Your task to perform on an android device: uninstall "Google Docs" Image 0: 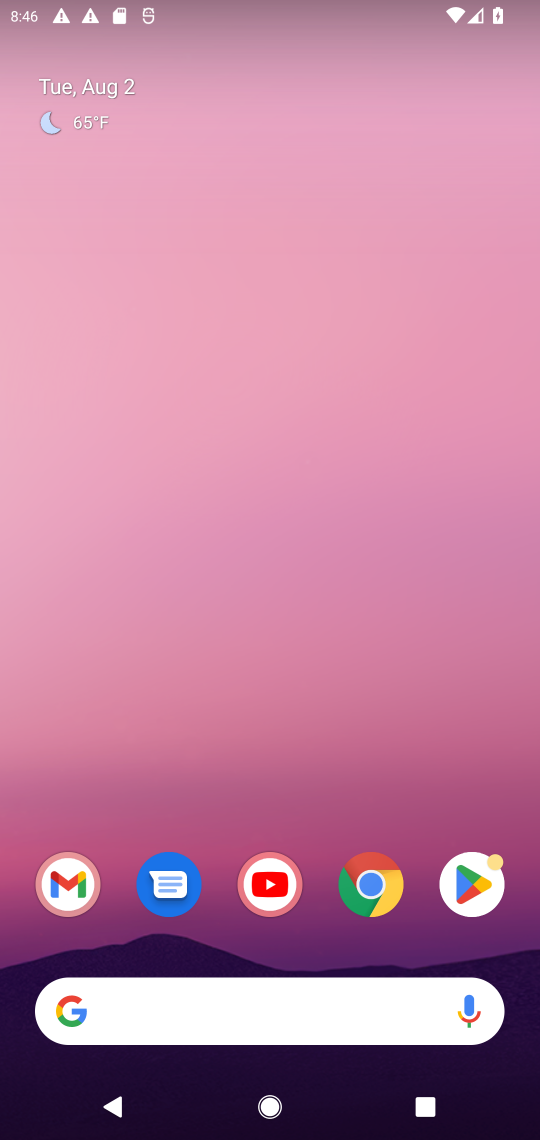
Step 0: press home button
Your task to perform on an android device: uninstall "Google Docs" Image 1: 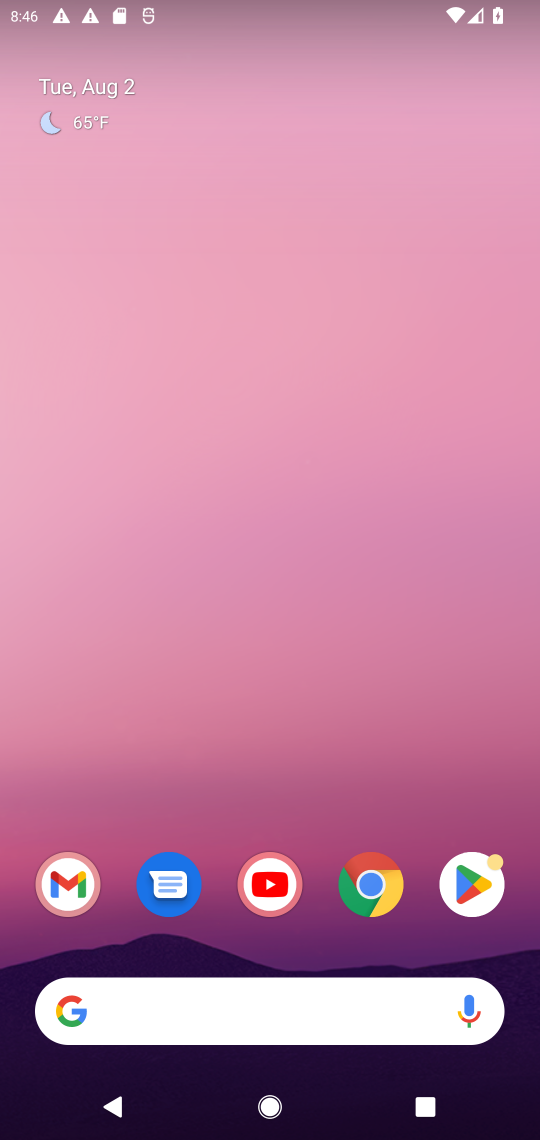
Step 1: click (478, 877)
Your task to perform on an android device: uninstall "Google Docs" Image 2: 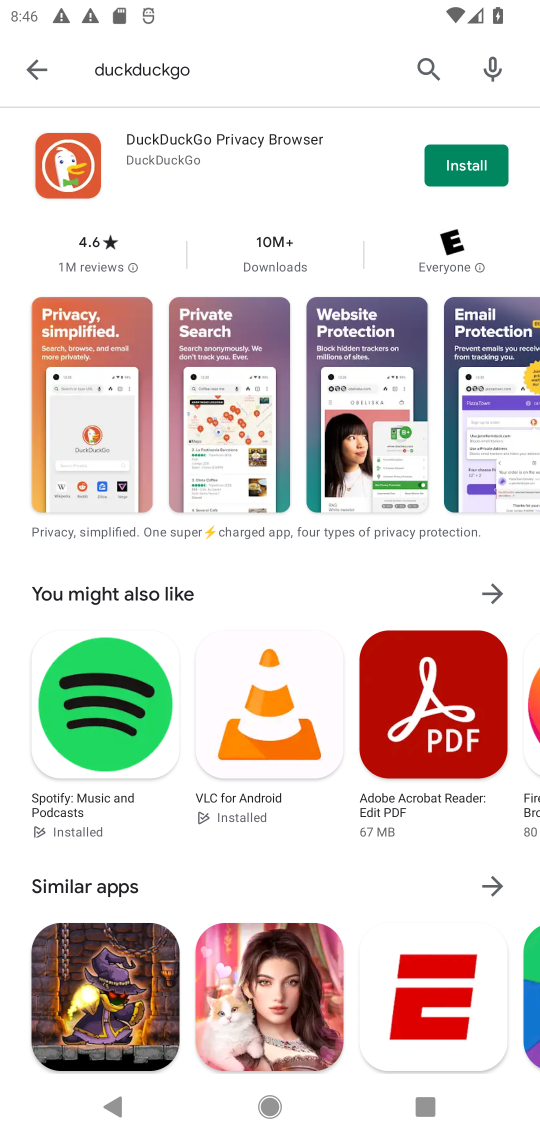
Step 2: click (425, 57)
Your task to perform on an android device: uninstall "Google Docs" Image 3: 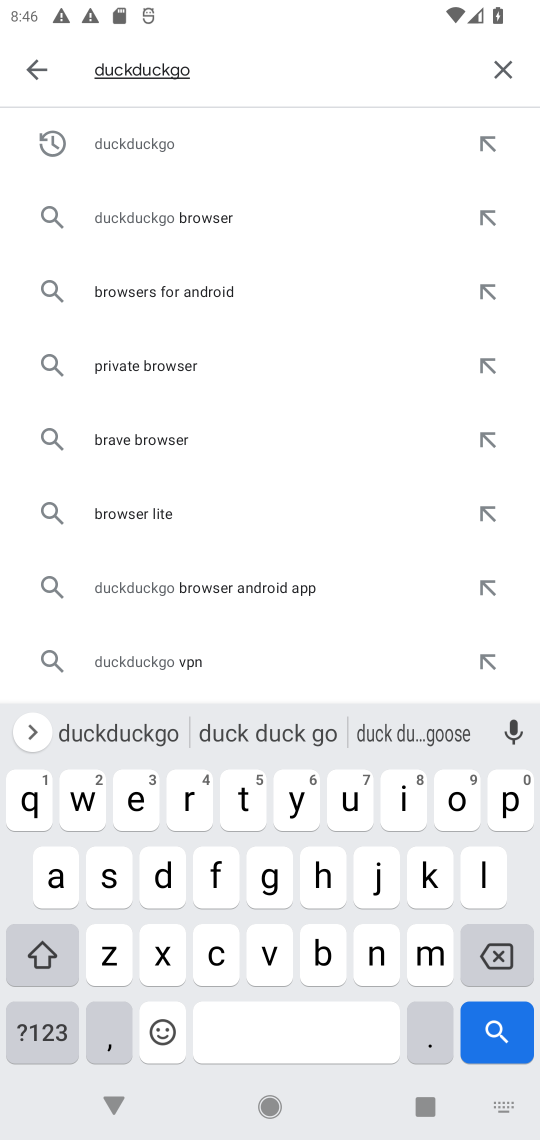
Step 3: click (498, 72)
Your task to perform on an android device: uninstall "Google Docs" Image 4: 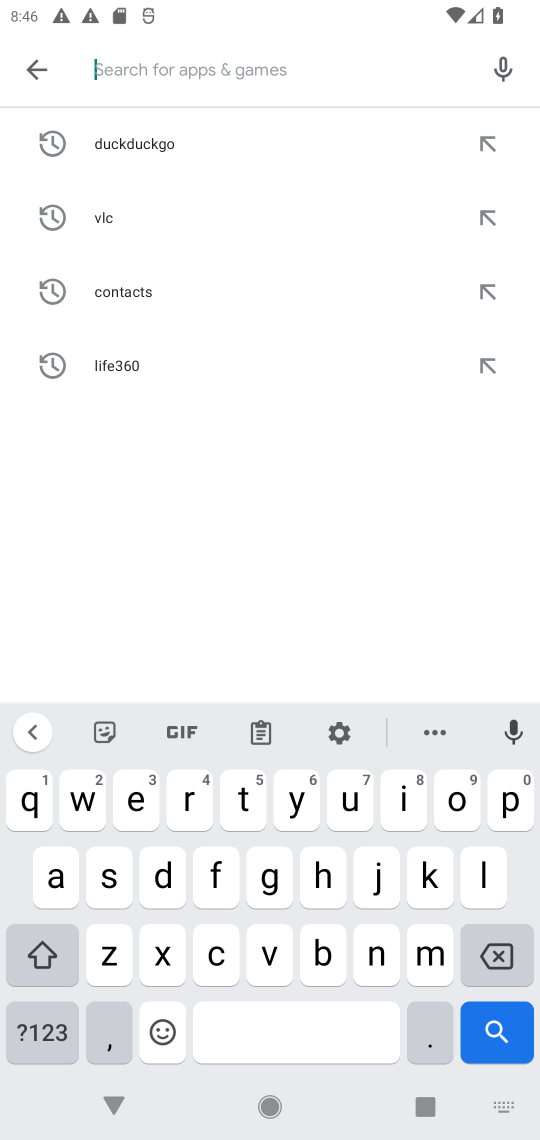
Step 4: click (164, 875)
Your task to perform on an android device: uninstall "Google Docs" Image 5: 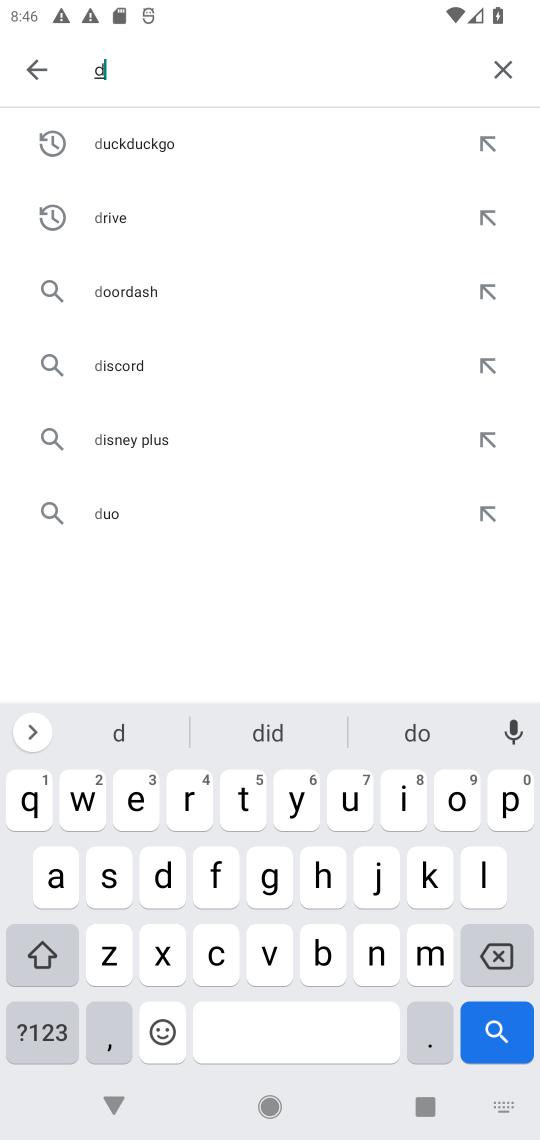
Step 5: click (460, 803)
Your task to perform on an android device: uninstall "Google Docs" Image 6: 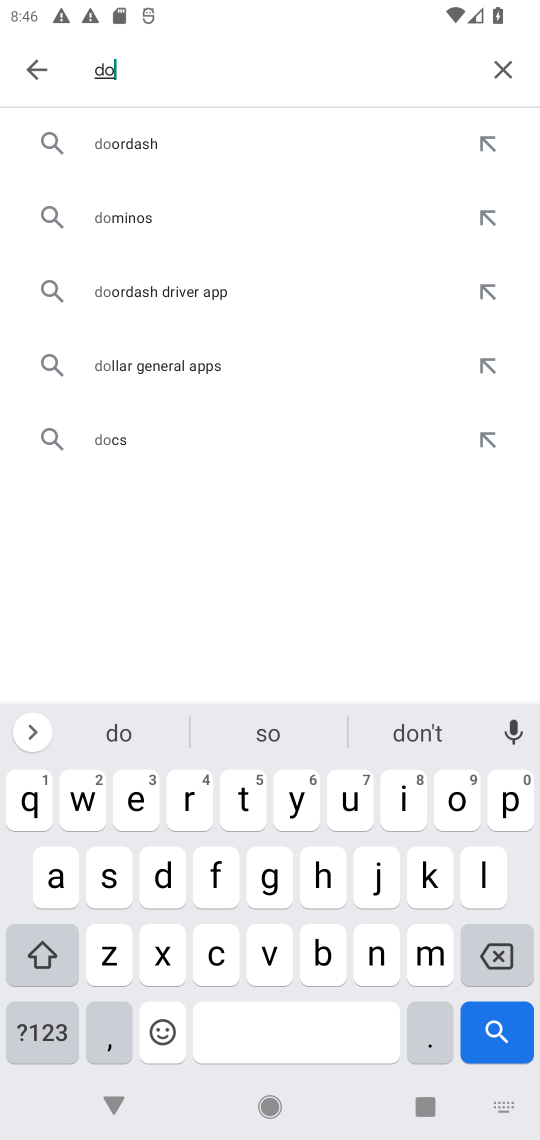
Step 6: click (204, 972)
Your task to perform on an android device: uninstall "Google Docs" Image 7: 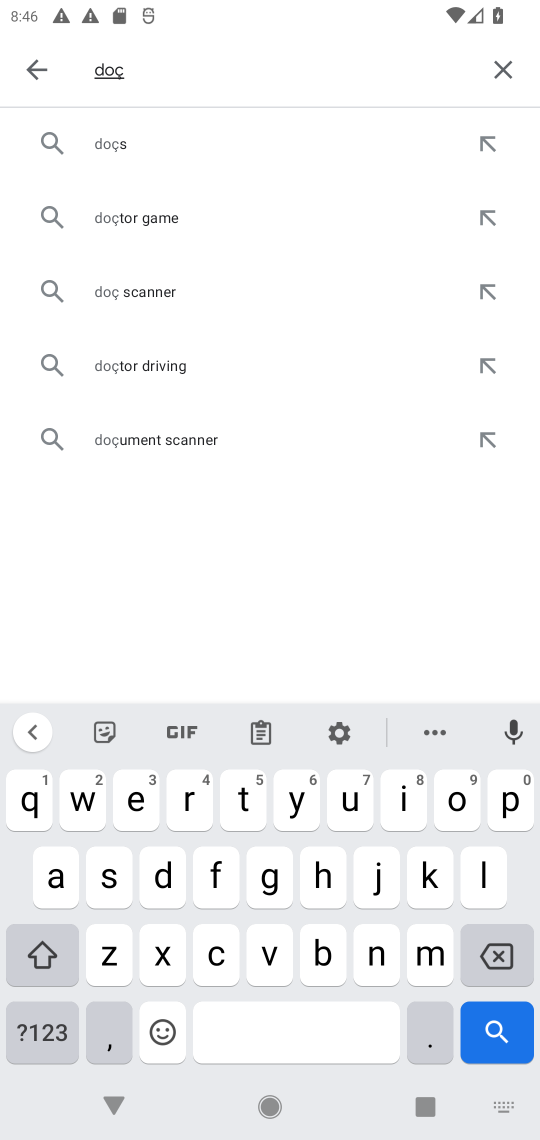
Step 7: click (145, 139)
Your task to perform on an android device: uninstall "Google Docs" Image 8: 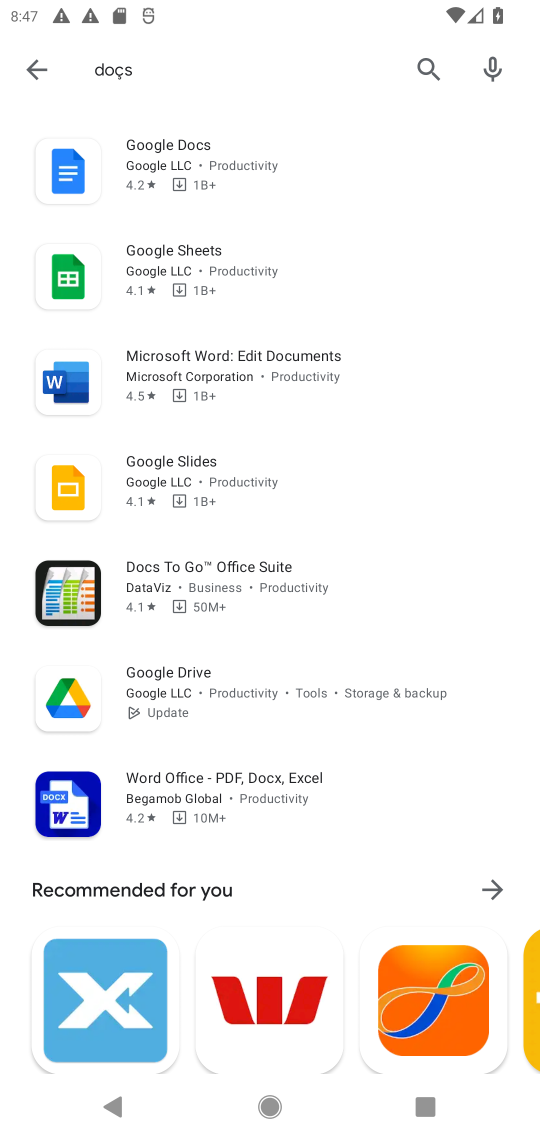
Step 8: click (239, 170)
Your task to perform on an android device: uninstall "Google Docs" Image 9: 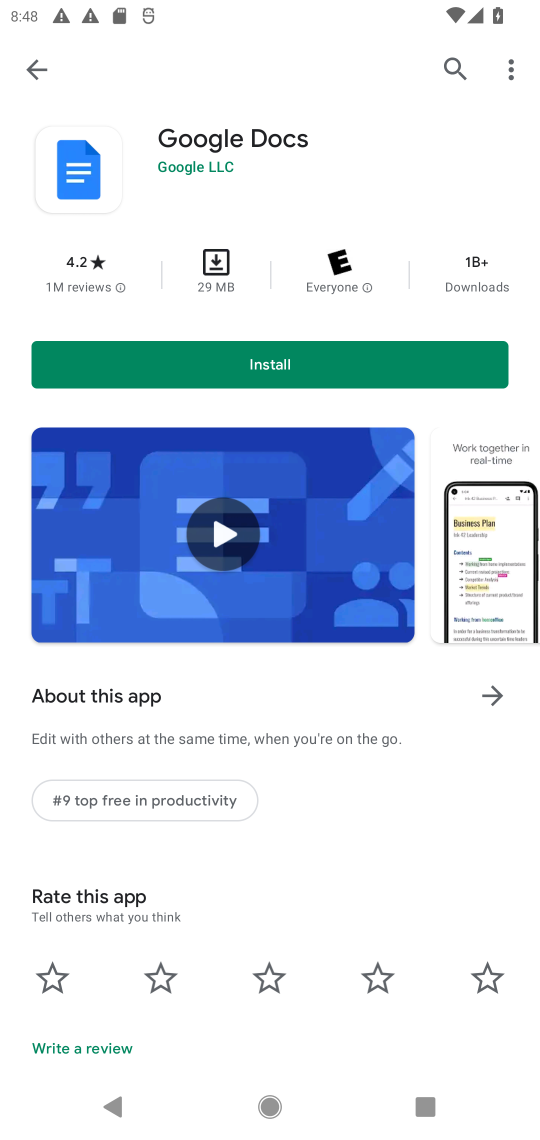
Step 9: task complete